Your task to perform on an android device: Set the phone to "Do not disturb". Image 0: 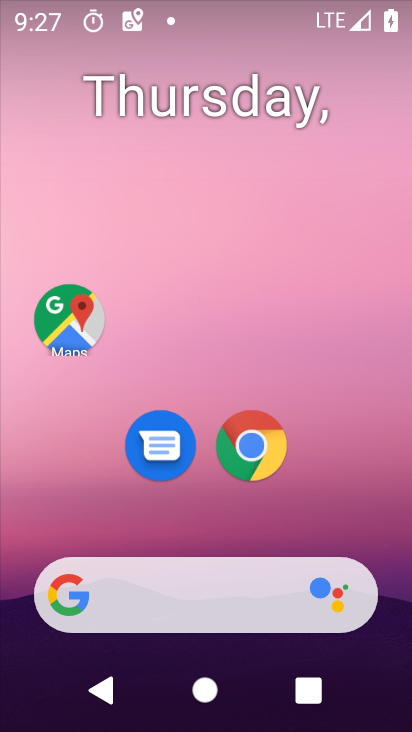
Step 0: drag from (204, 529) to (198, 253)
Your task to perform on an android device: Set the phone to "Do not disturb". Image 1: 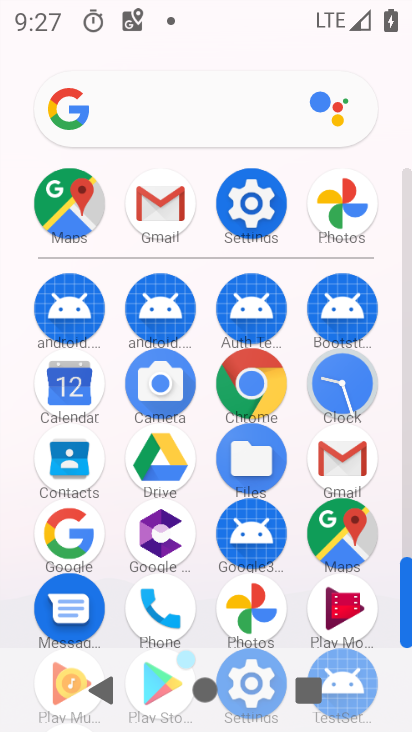
Step 1: click (249, 216)
Your task to perform on an android device: Set the phone to "Do not disturb". Image 2: 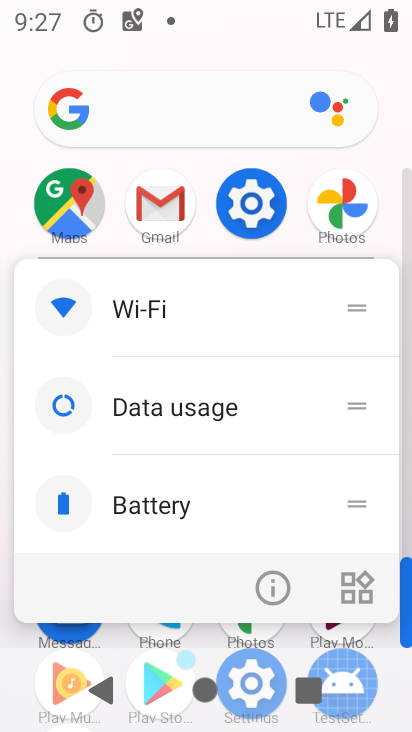
Step 2: click (276, 594)
Your task to perform on an android device: Set the phone to "Do not disturb". Image 3: 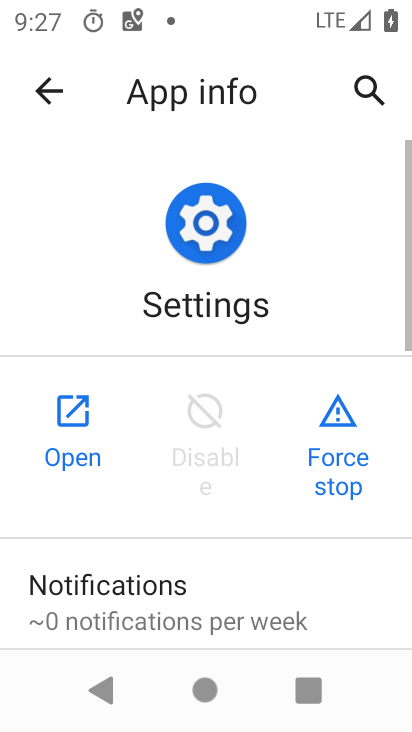
Step 3: click (71, 407)
Your task to perform on an android device: Set the phone to "Do not disturb". Image 4: 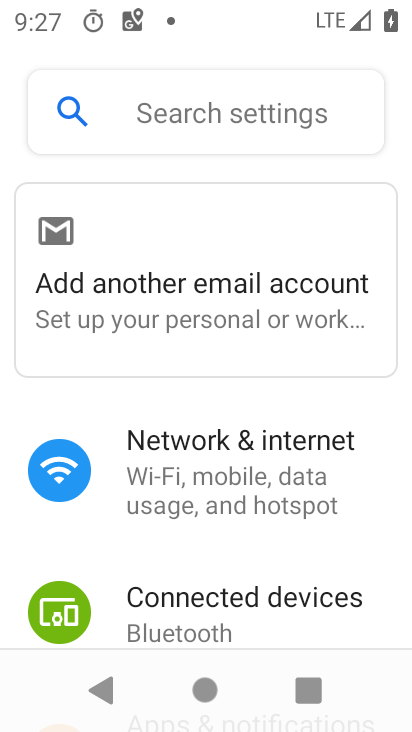
Step 4: drag from (224, 537) to (230, 371)
Your task to perform on an android device: Set the phone to "Do not disturb". Image 5: 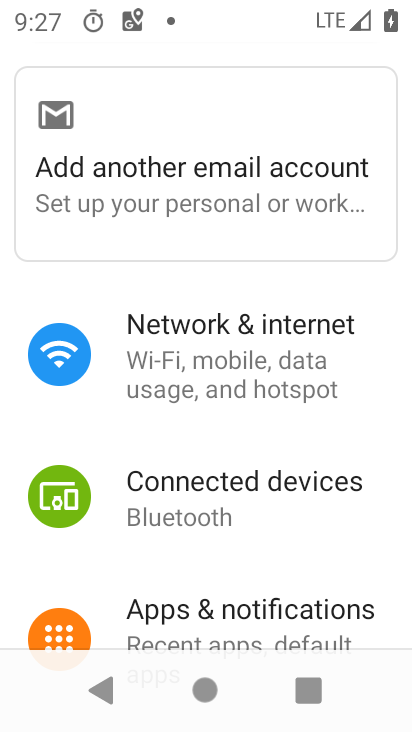
Step 5: drag from (204, 595) to (197, 298)
Your task to perform on an android device: Set the phone to "Do not disturb". Image 6: 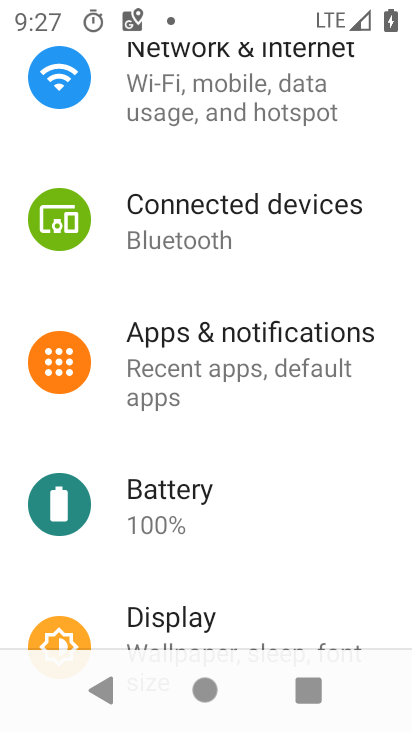
Step 6: drag from (230, 555) to (247, 266)
Your task to perform on an android device: Set the phone to "Do not disturb". Image 7: 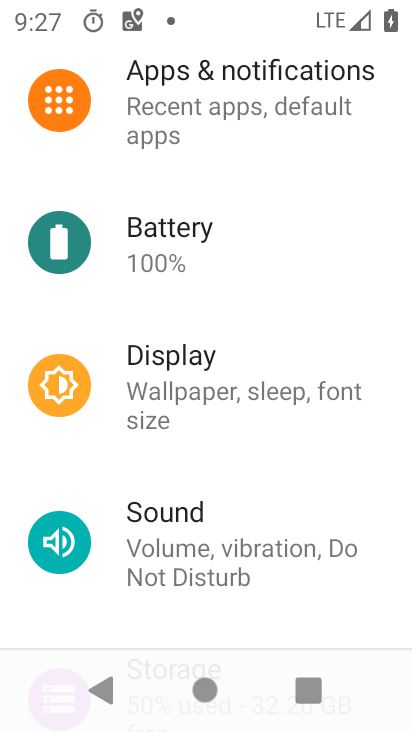
Step 7: click (205, 90)
Your task to perform on an android device: Set the phone to "Do not disturb". Image 8: 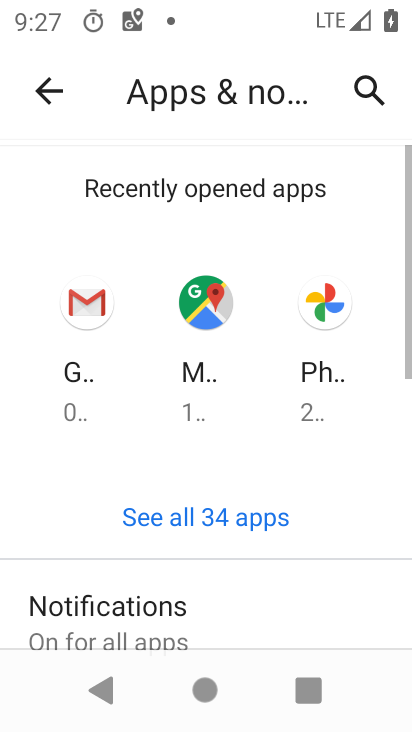
Step 8: drag from (208, 590) to (227, 223)
Your task to perform on an android device: Set the phone to "Do not disturb". Image 9: 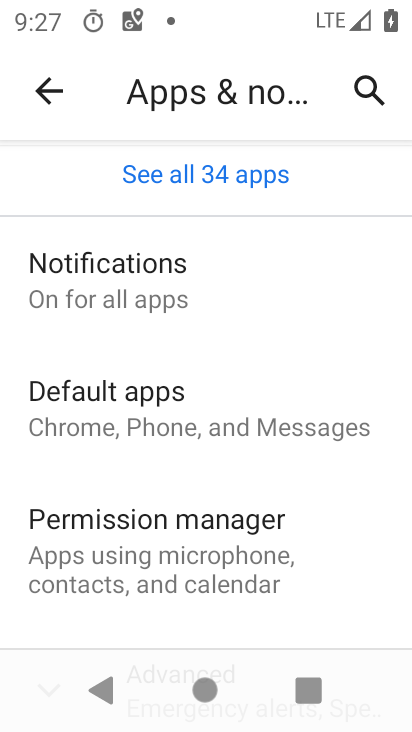
Step 9: click (163, 293)
Your task to perform on an android device: Set the phone to "Do not disturb". Image 10: 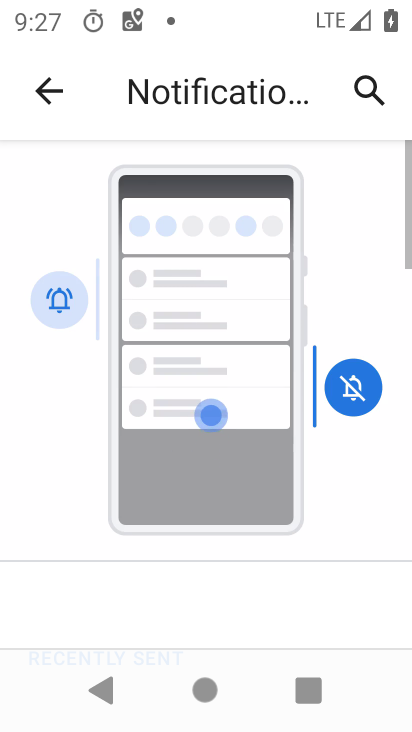
Step 10: drag from (226, 432) to (267, 118)
Your task to perform on an android device: Set the phone to "Do not disturb". Image 11: 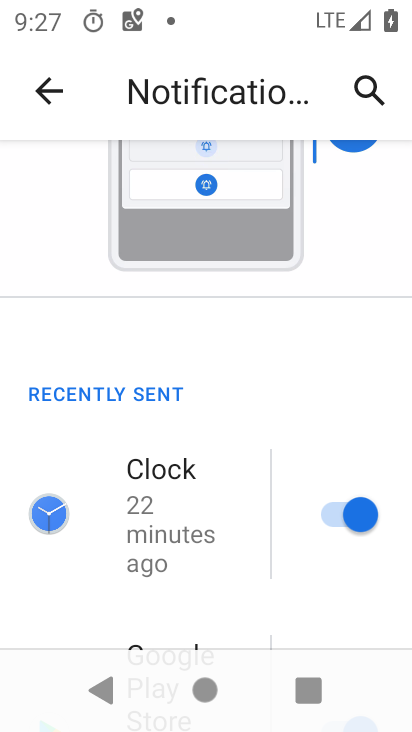
Step 11: drag from (203, 498) to (266, 243)
Your task to perform on an android device: Set the phone to "Do not disturb". Image 12: 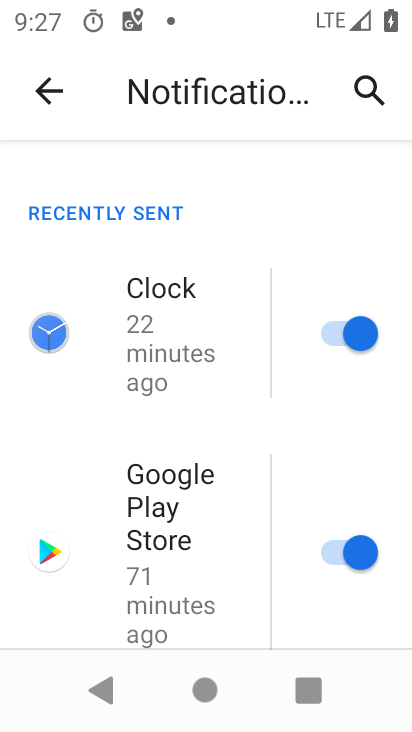
Step 12: drag from (237, 503) to (302, 248)
Your task to perform on an android device: Set the phone to "Do not disturb". Image 13: 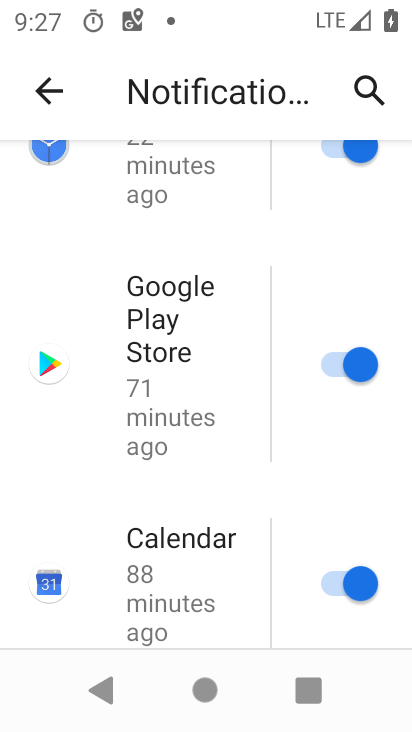
Step 13: drag from (223, 510) to (240, 215)
Your task to perform on an android device: Set the phone to "Do not disturb". Image 14: 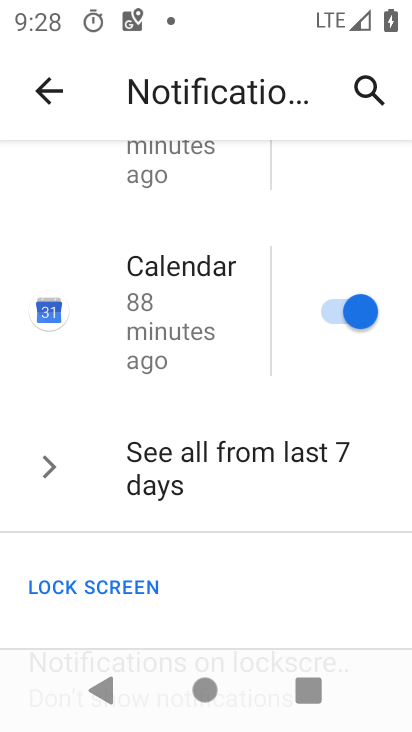
Step 14: drag from (210, 568) to (236, 317)
Your task to perform on an android device: Set the phone to "Do not disturb". Image 15: 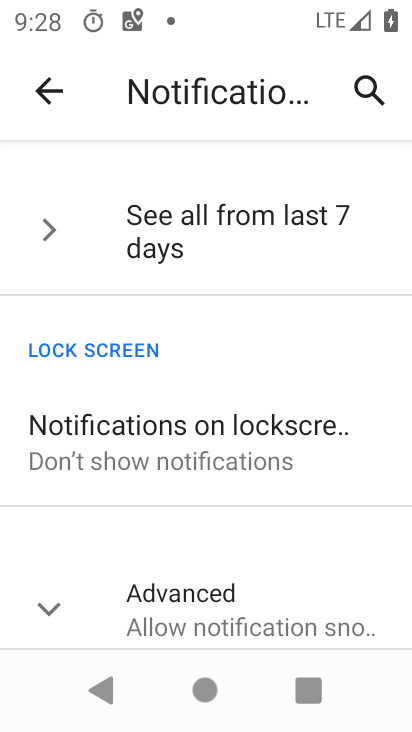
Step 15: click (200, 611)
Your task to perform on an android device: Set the phone to "Do not disturb". Image 16: 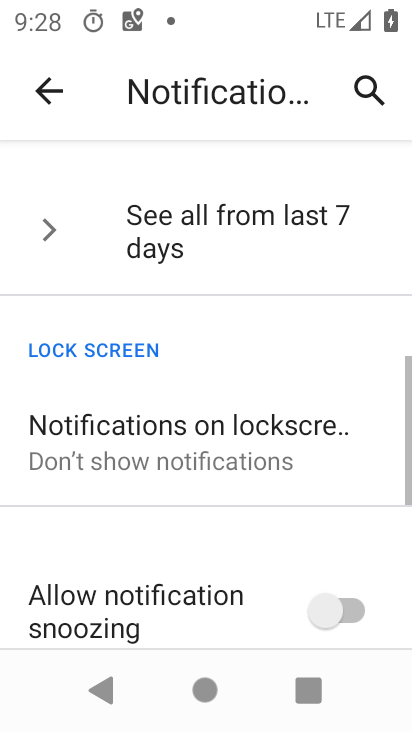
Step 16: drag from (199, 602) to (213, 327)
Your task to perform on an android device: Set the phone to "Do not disturb". Image 17: 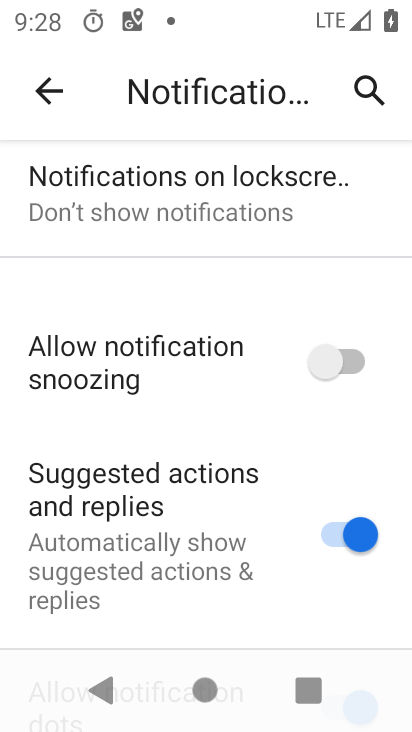
Step 17: drag from (213, 597) to (236, 365)
Your task to perform on an android device: Set the phone to "Do not disturb". Image 18: 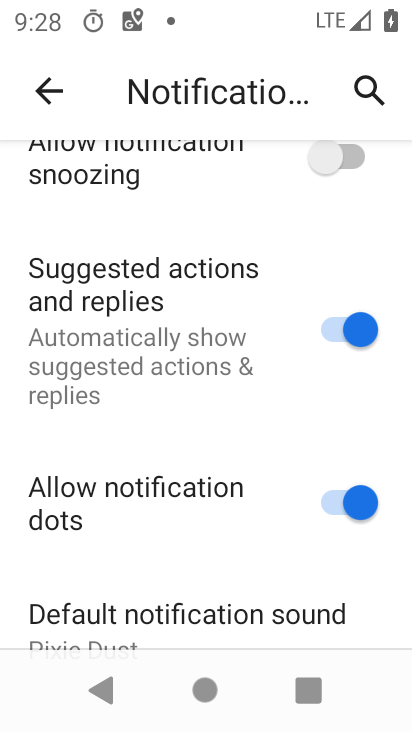
Step 18: drag from (196, 583) to (248, 323)
Your task to perform on an android device: Set the phone to "Do not disturb". Image 19: 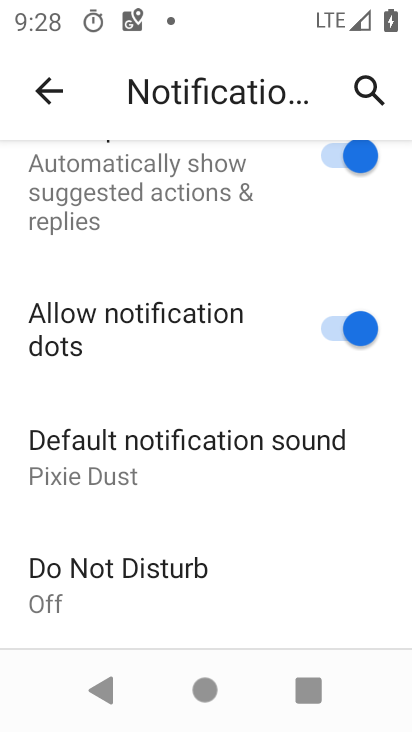
Step 19: drag from (213, 602) to (249, 358)
Your task to perform on an android device: Set the phone to "Do not disturb". Image 20: 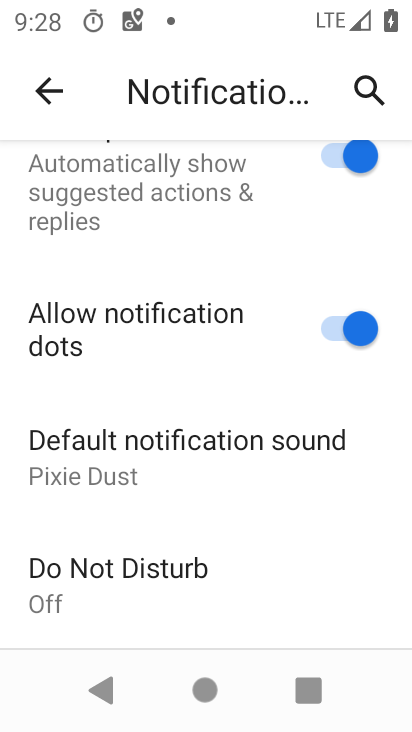
Step 20: click (174, 559)
Your task to perform on an android device: Set the phone to "Do not disturb". Image 21: 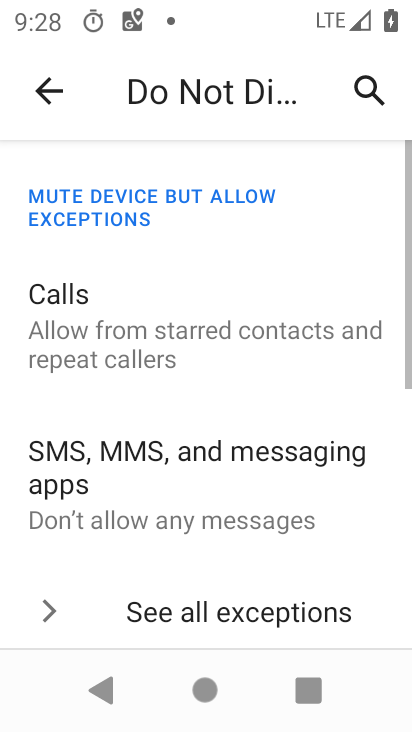
Step 21: drag from (210, 568) to (326, 160)
Your task to perform on an android device: Set the phone to "Do not disturb". Image 22: 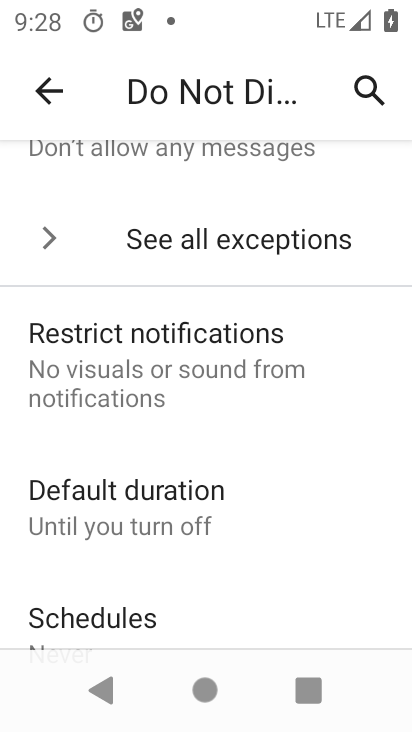
Step 22: drag from (195, 602) to (230, 122)
Your task to perform on an android device: Set the phone to "Do not disturb". Image 23: 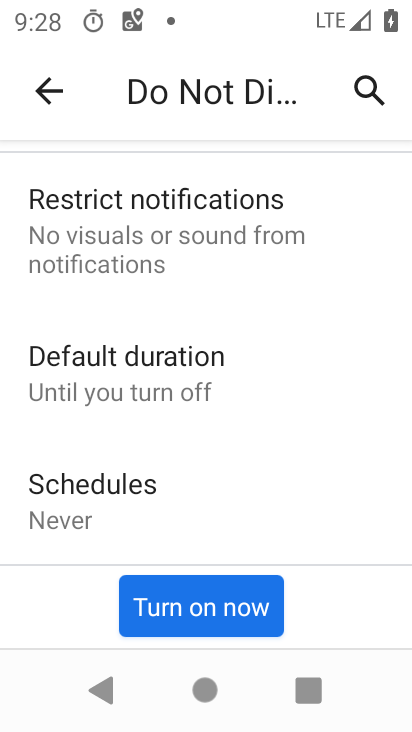
Step 23: click (196, 611)
Your task to perform on an android device: Set the phone to "Do not disturb". Image 24: 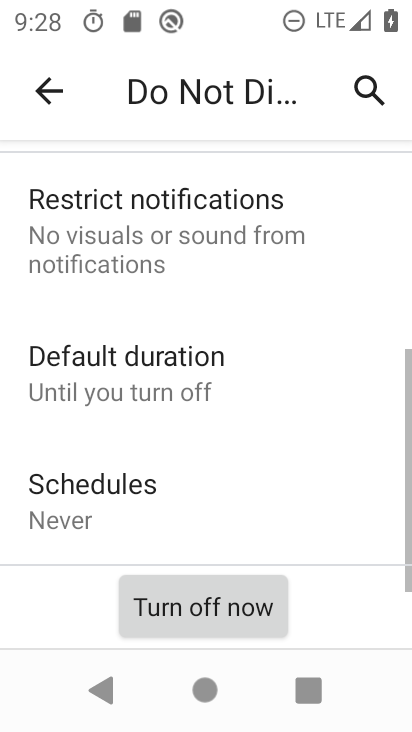
Step 24: task complete